Your task to perform on an android device: search for starred emails in the gmail app Image 0: 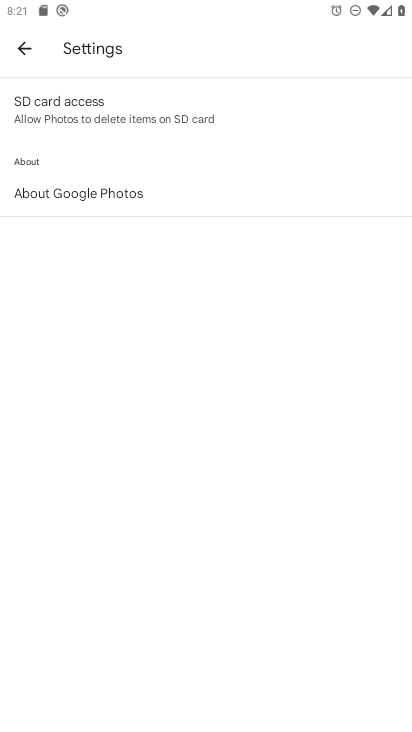
Step 0: press home button
Your task to perform on an android device: search for starred emails in the gmail app Image 1: 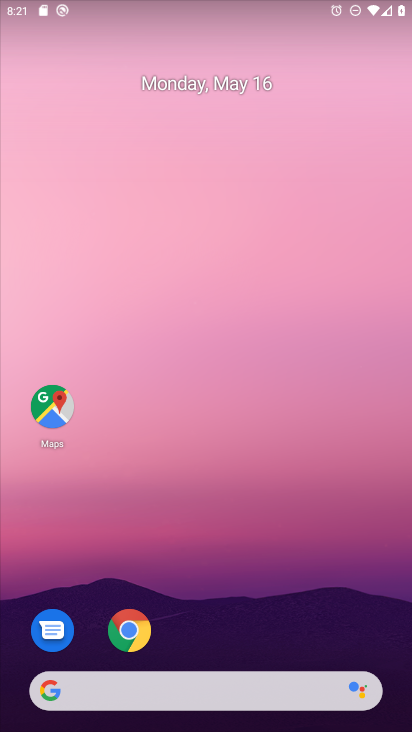
Step 1: drag from (279, 652) to (228, 316)
Your task to perform on an android device: search for starred emails in the gmail app Image 2: 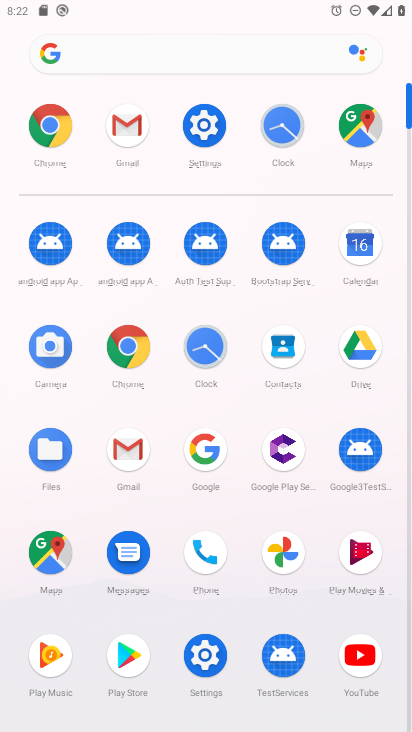
Step 2: click (115, 129)
Your task to perform on an android device: search for starred emails in the gmail app Image 3: 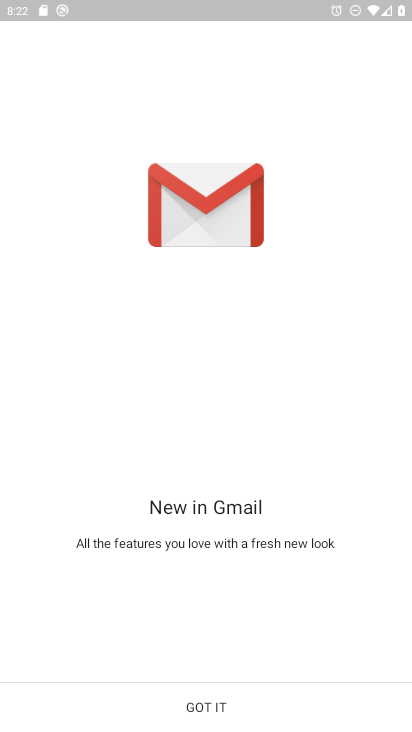
Step 3: task complete